Your task to perform on an android device: Empty the shopping cart on walmart. Add macbook pro 15 inch to the cart on walmart, then select checkout. Image 0: 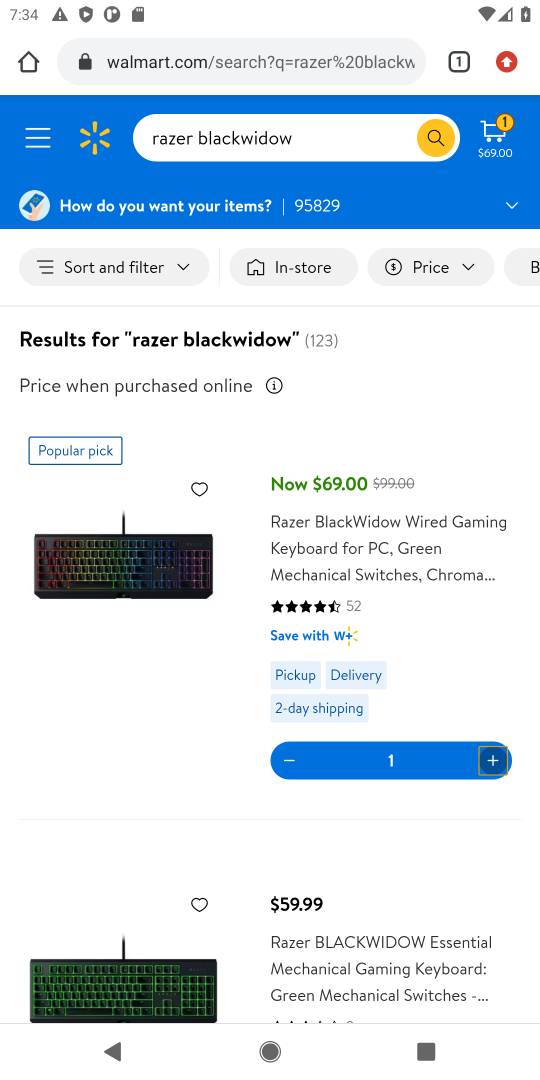
Step 0: press home button
Your task to perform on an android device: Empty the shopping cart on walmart. Add macbook pro 15 inch to the cart on walmart, then select checkout. Image 1: 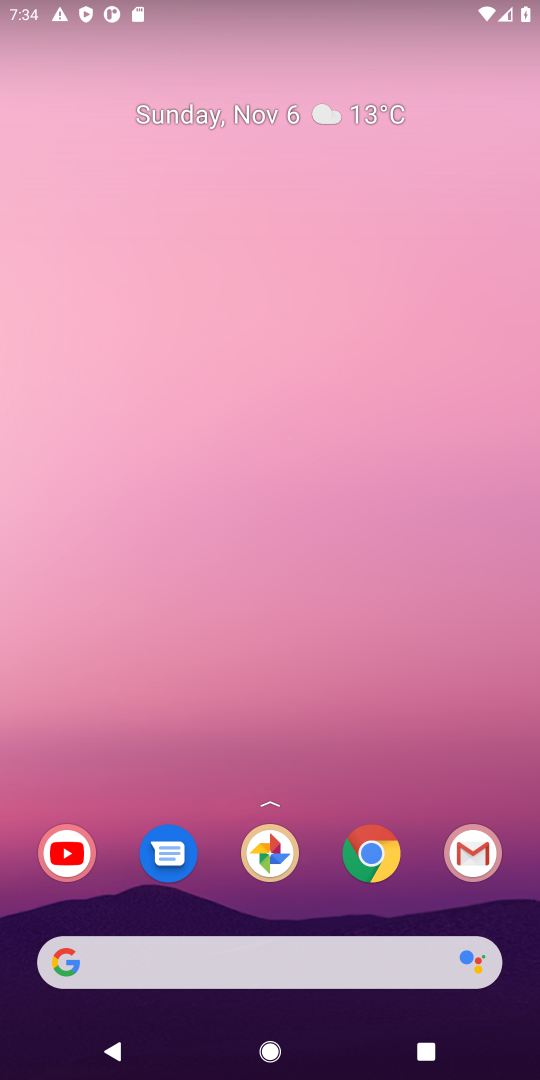
Step 1: click (370, 855)
Your task to perform on an android device: Empty the shopping cart on walmart. Add macbook pro 15 inch to the cart on walmart, then select checkout. Image 2: 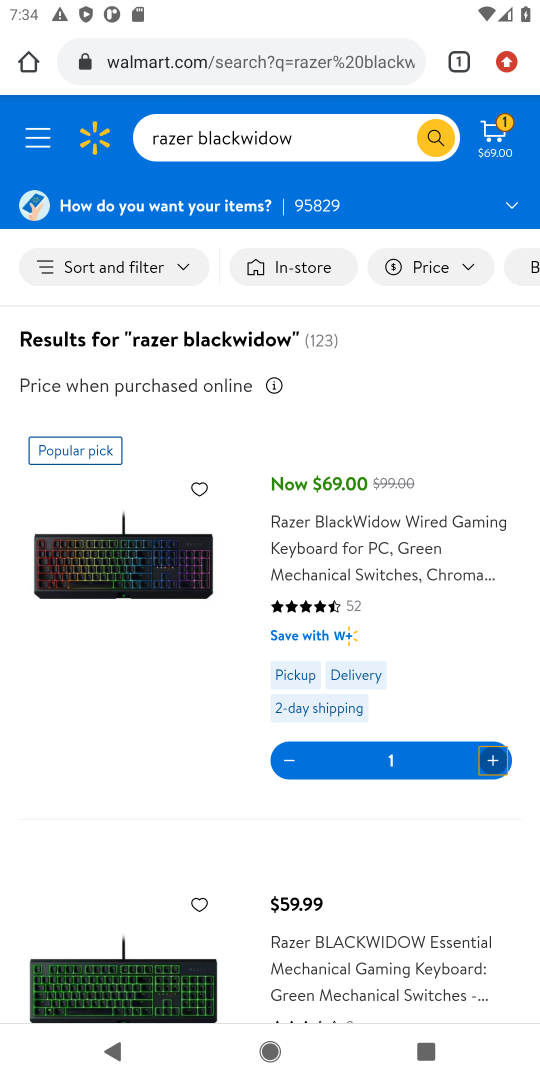
Step 2: click (274, 37)
Your task to perform on an android device: Empty the shopping cart on walmart. Add macbook pro 15 inch to the cart on walmart, then select checkout. Image 3: 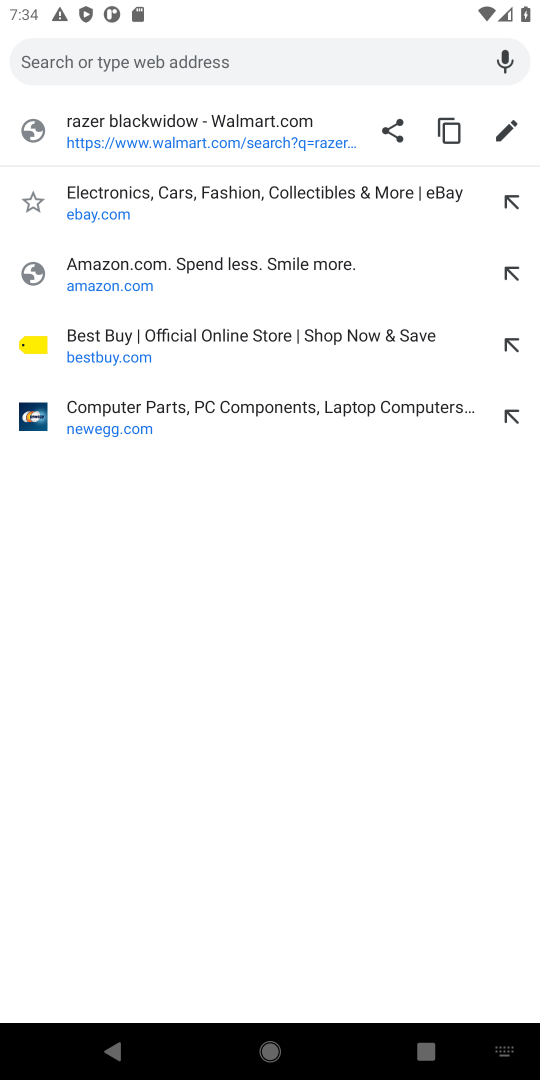
Step 3: type "walmart"
Your task to perform on an android device: Empty the shopping cart on walmart. Add macbook pro 15 inch to the cart on walmart, then select checkout. Image 4: 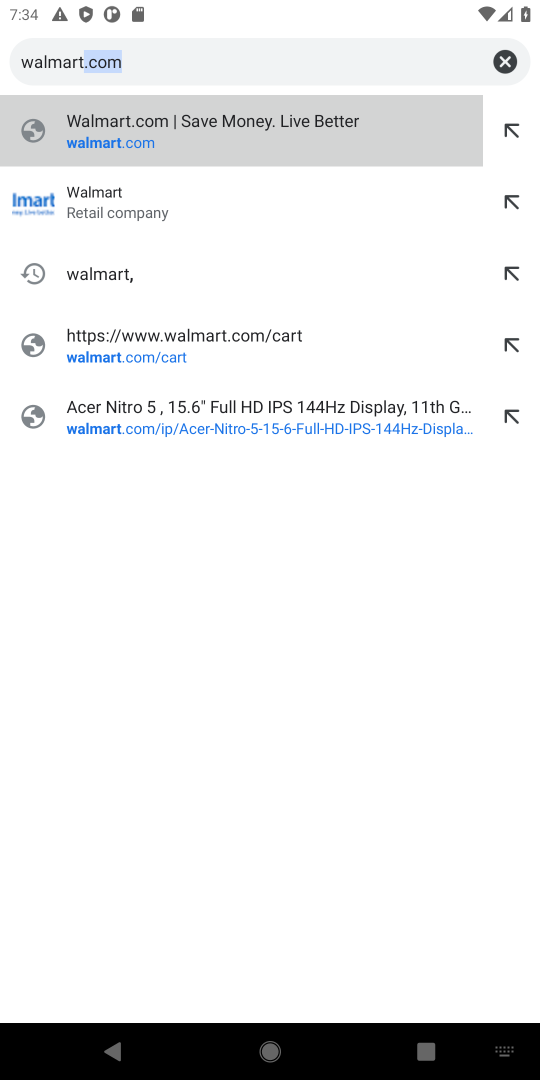
Step 4: click (84, 125)
Your task to perform on an android device: Empty the shopping cart on walmart. Add macbook pro 15 inch to the cart on walmart, then select checkout. Image 5: 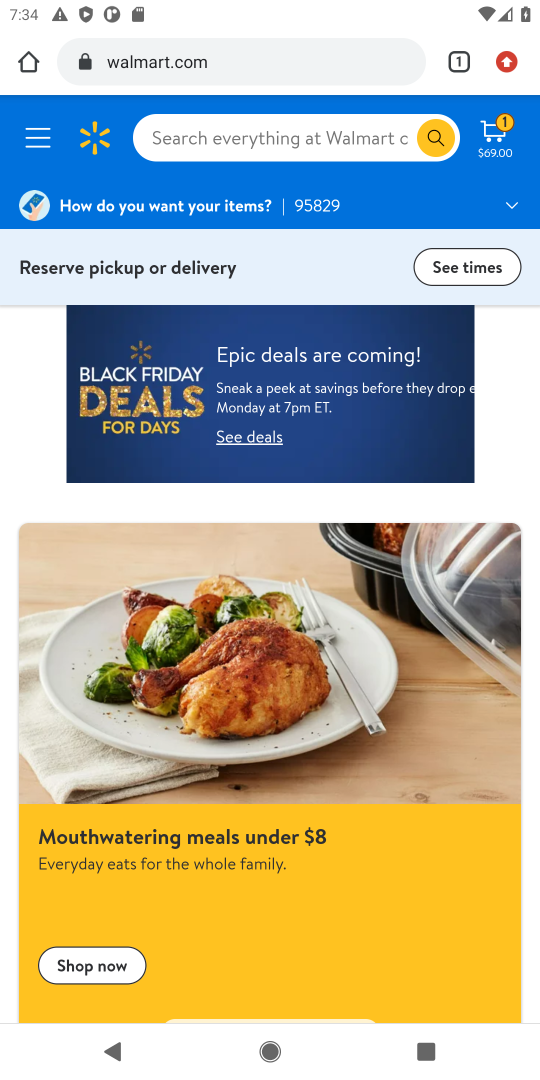
Step 5: click (258, 128)
Your task to perform on an android device: Empty the shopping cart on walmart. Add macbook pro 15 inch to the cart on walmart, then select checkout. Image 6: 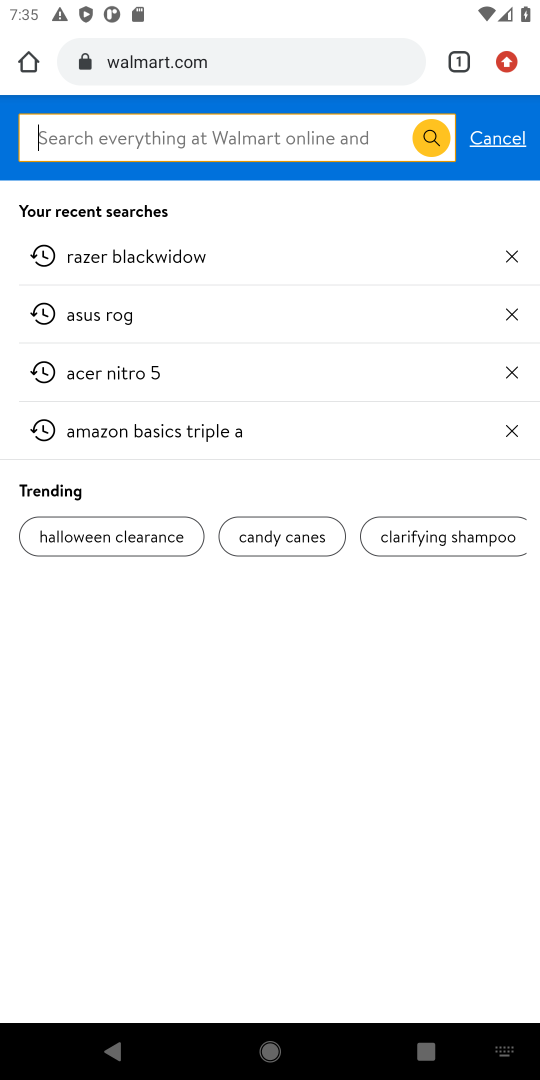
Step 6: click (484, 134)
Your task to perform on an android device: Empty the shopping cart on walmart. Add macbook pro 15 inch to the cart on walmart, then select checkout. Image 7: 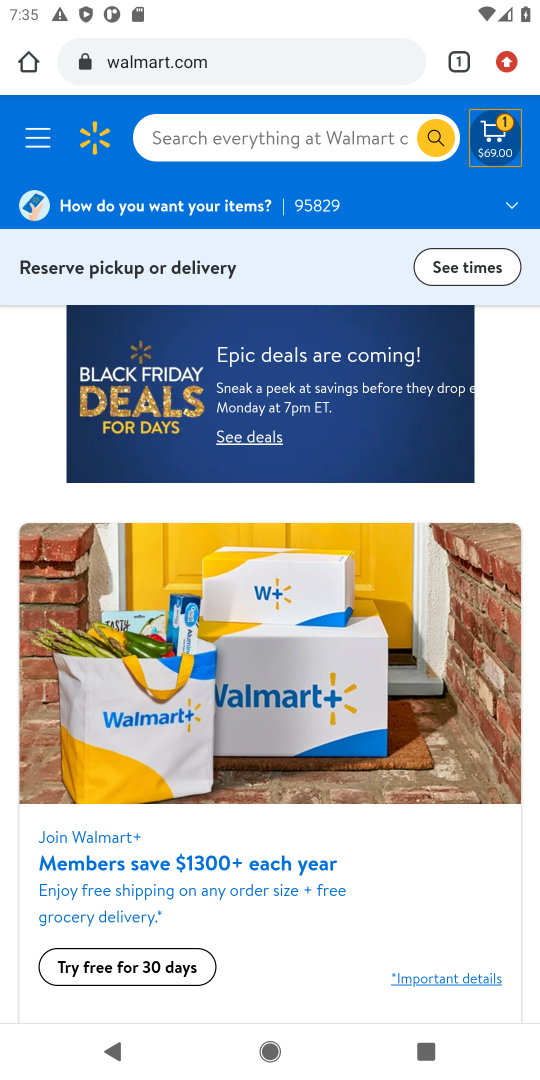
Step 7: click (489, 131)
Your task to perform on an android device: Empty the shopping cart on walmart. Add macbook pro 15 inch to the cart on walmart, then select checkout. Image 8: 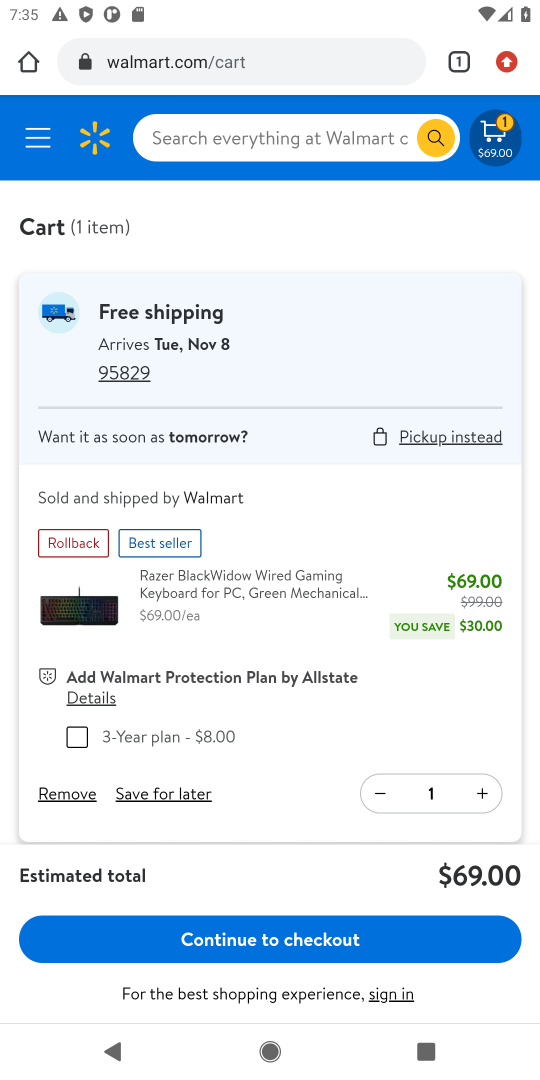
Step 8: click (52, 796)
Your task to perform on an android device: Empty the shopping cart on walmart. Add macbook pro 15 inch to the cart on walmart, then select checkout. Image 9: 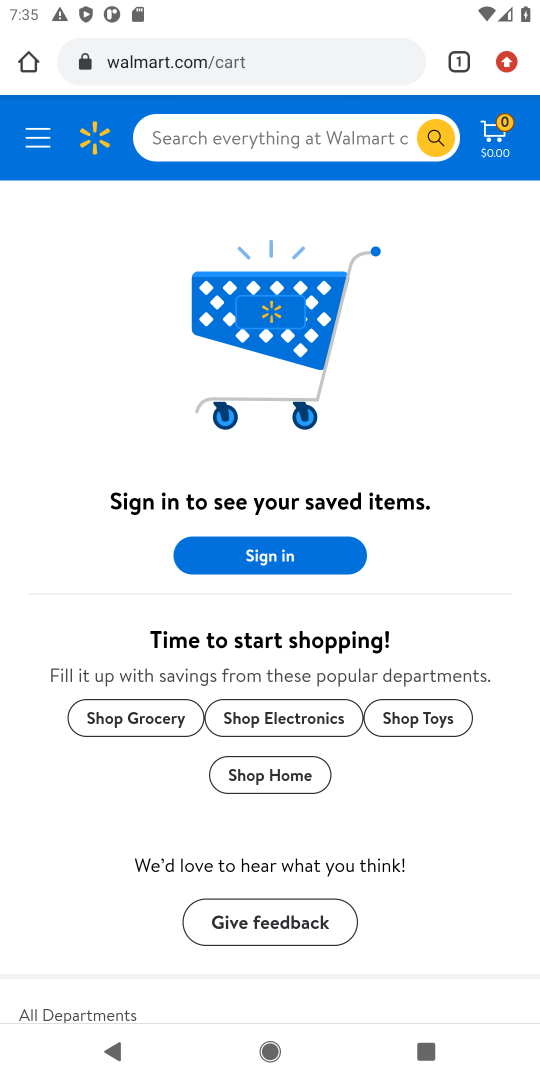
Step 9: click (210, 135)
Your task to perform on an android device: Empty the shopping cart on walmart. Add macbook pro 15 inch to the cart on walmart, then select checkout. Image 10: 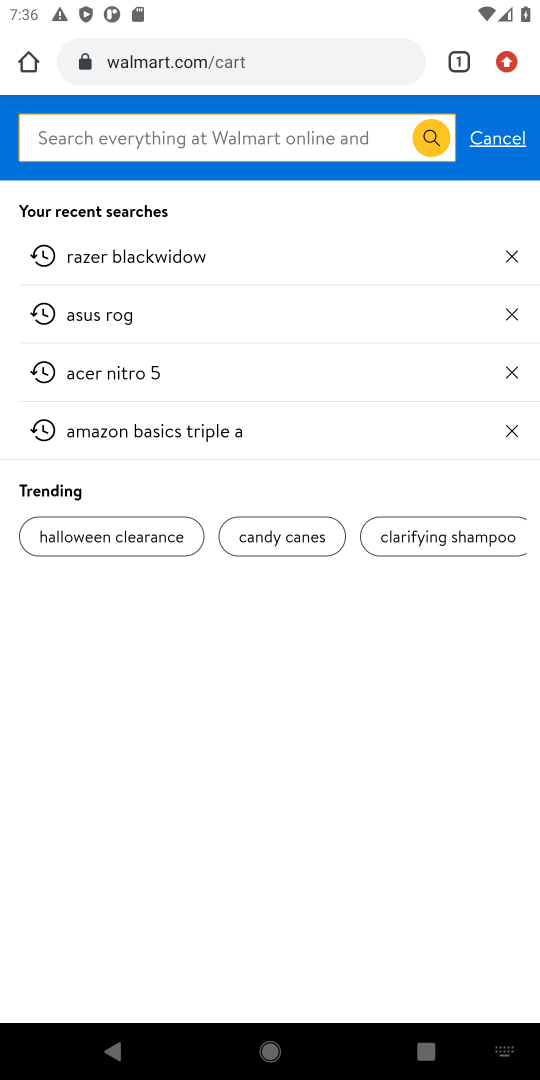
Step 10: type "macbook pro 15 inch"
Your task to perform on an android device: Empty the shopping cart on walmart. Add macbook pro 15 inch to the cart on walmart, then select checkout. Image 11: 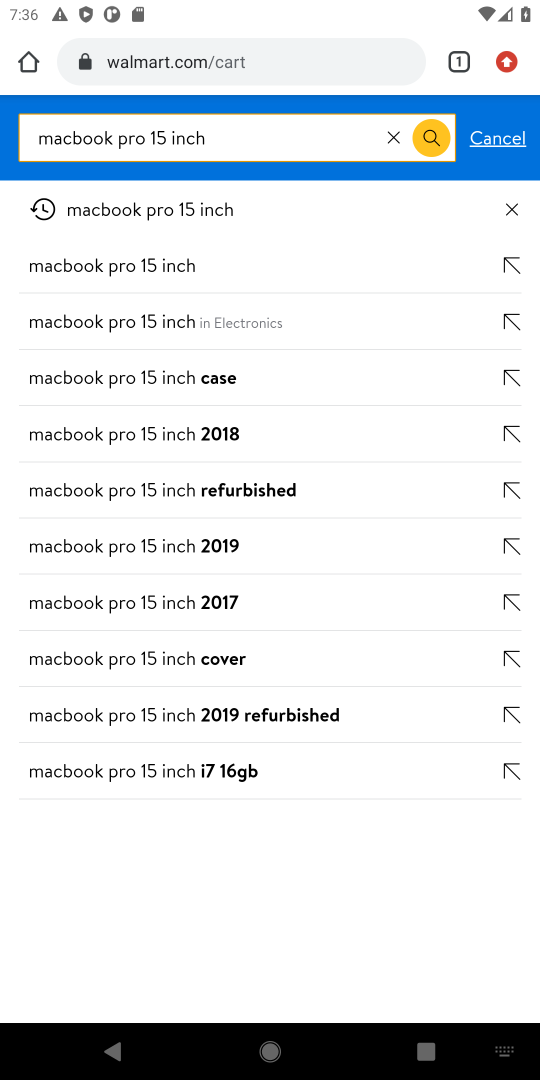
Step 11: click (119, 209)
Your task to perform on an android device: Empty the shopping cart on walmart. Add macbook pro 15 inch to the cart on walmart, then select checkout. Image 12: 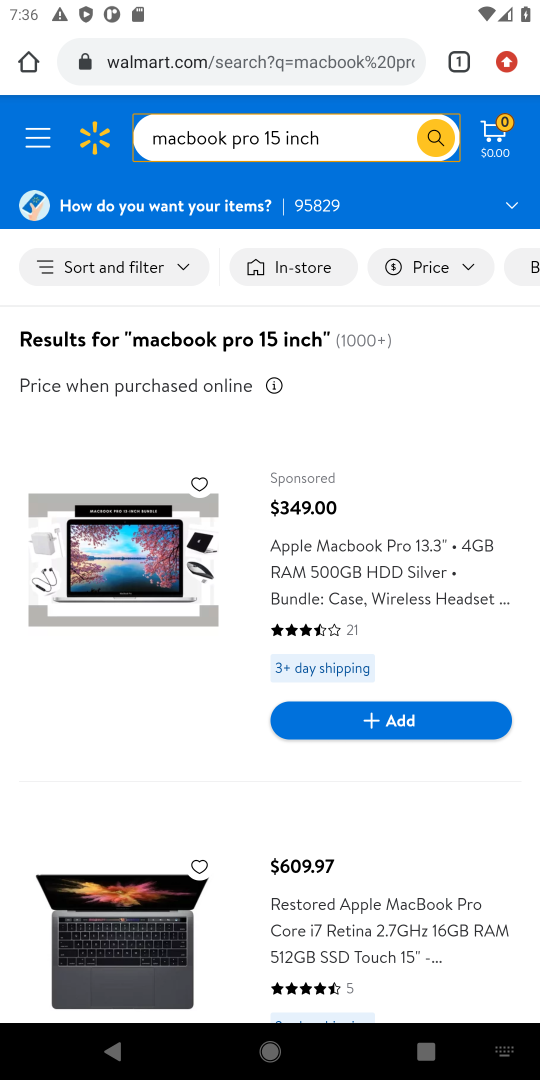
Step 12: drag from (293, 817) to (298, 280)
Your task to perform on an android device: Empty the shopping cart on walmart. Add macbook pro 15 inch to the cart on walmart, then select checkout. Image 13: 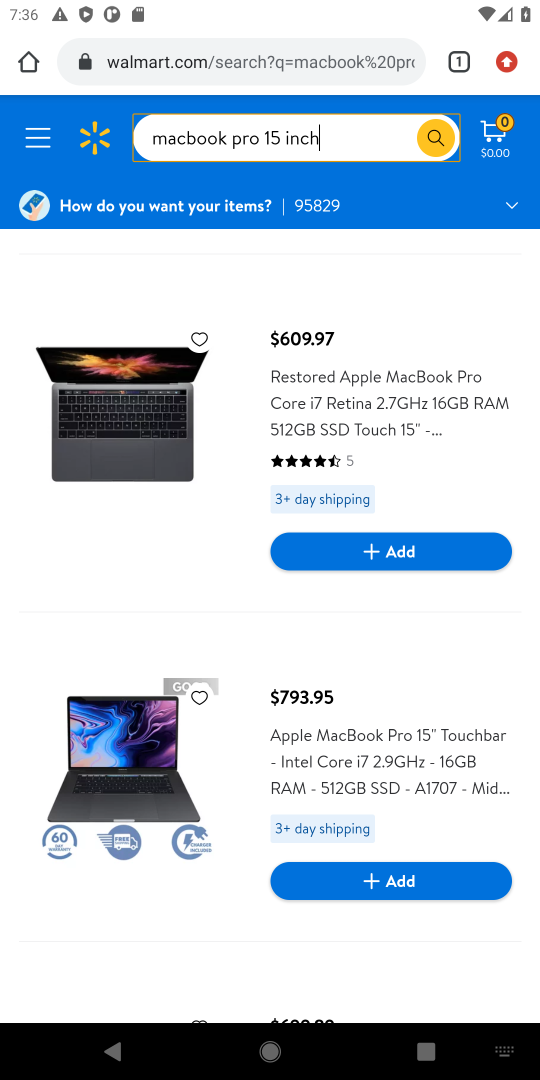
Step 13: drag from (255, 682) to (291, 302)
Your task to perform on an android device: Empty the shopping cart on walmart. Add macbook pro 15 inch to the cart on walmart, then select checkout. Image 14: 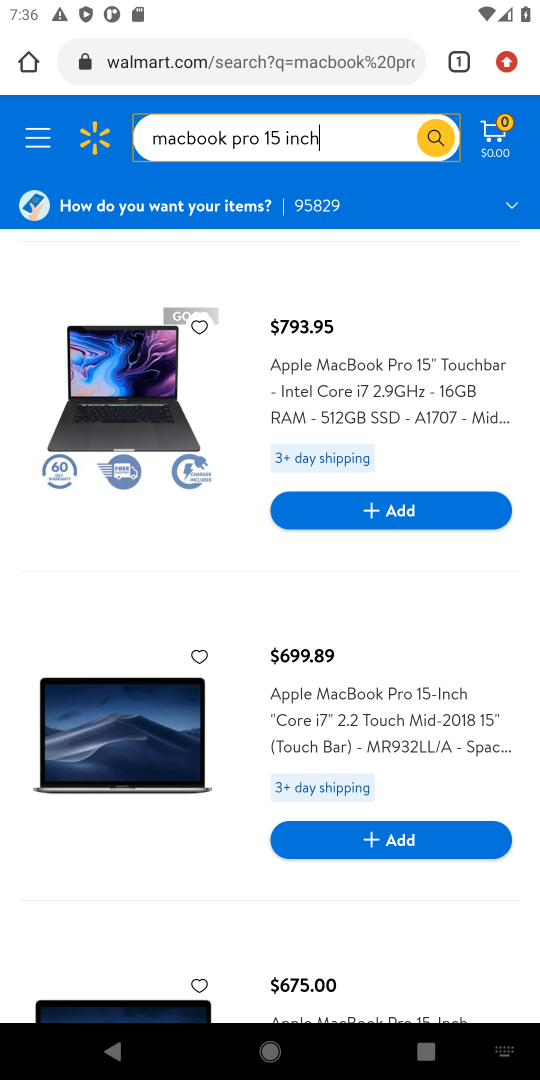
Step 14: drag from (319, 707) to (312, 637)
Your task to perform on an android device: Empty the shopping cart on walmart. Add macbook pro 15 inch to the cart on walmart, then select checkout. Image 15: 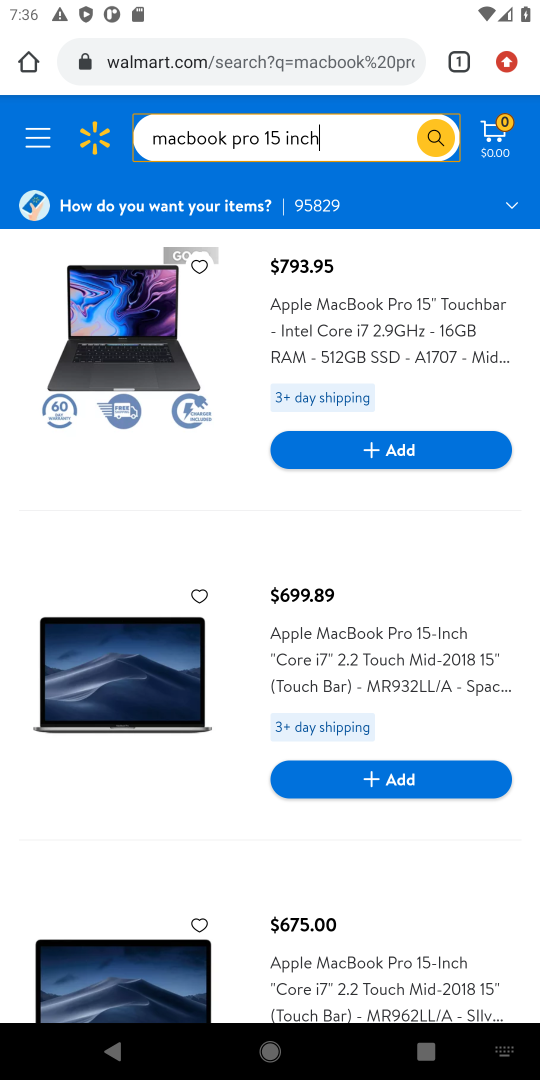
Step 15: click (374, 779)
Your task to perform on an android device: Empty the shopping cart on walmart. Add macbook pro 15 inch to the cart on walmart, then select checkout. Image 16: 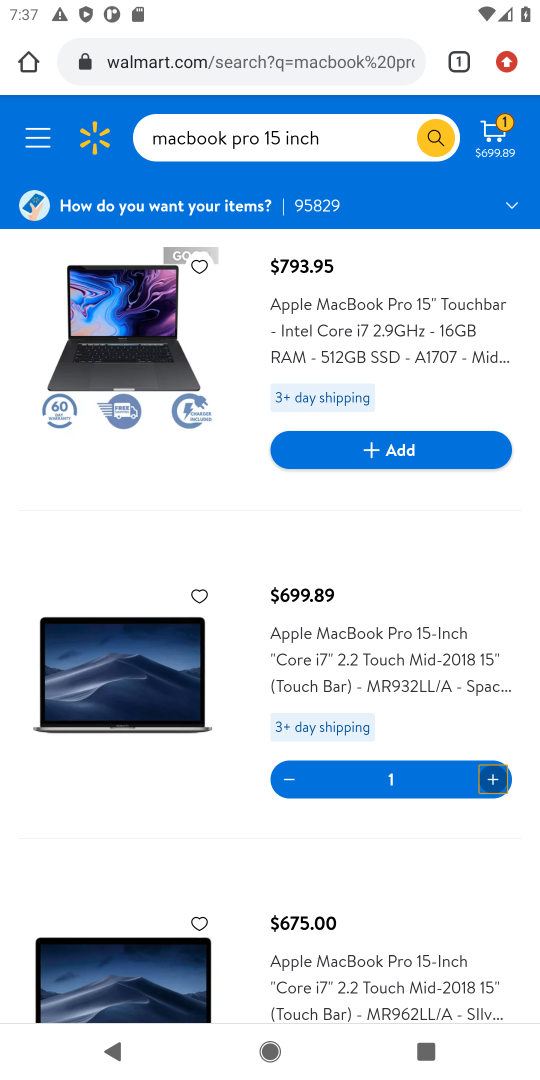
Step 16: click (502, 126)
Your task to perform on an android device: Empty the shopping cart on walmart. Add macbook pro 15 inch to the cart on walmart, then select checkout. Image 17: 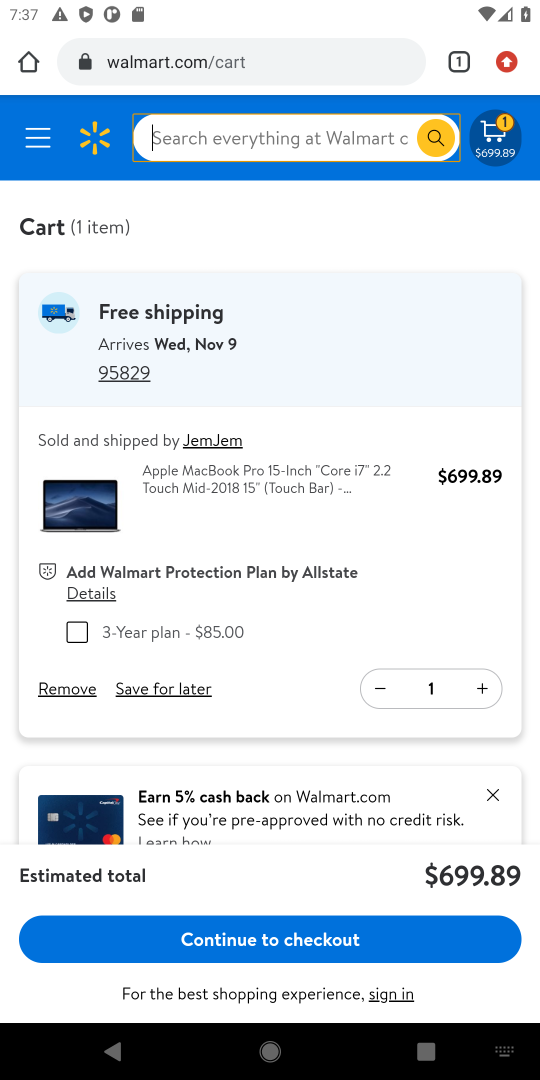
Step 17: click (274, 935)
Your task to perform on an android device: Empty the shopping cart on walmart. Add macbook pro 15 inch to the cart on walmart, then select checkout. Image 18: 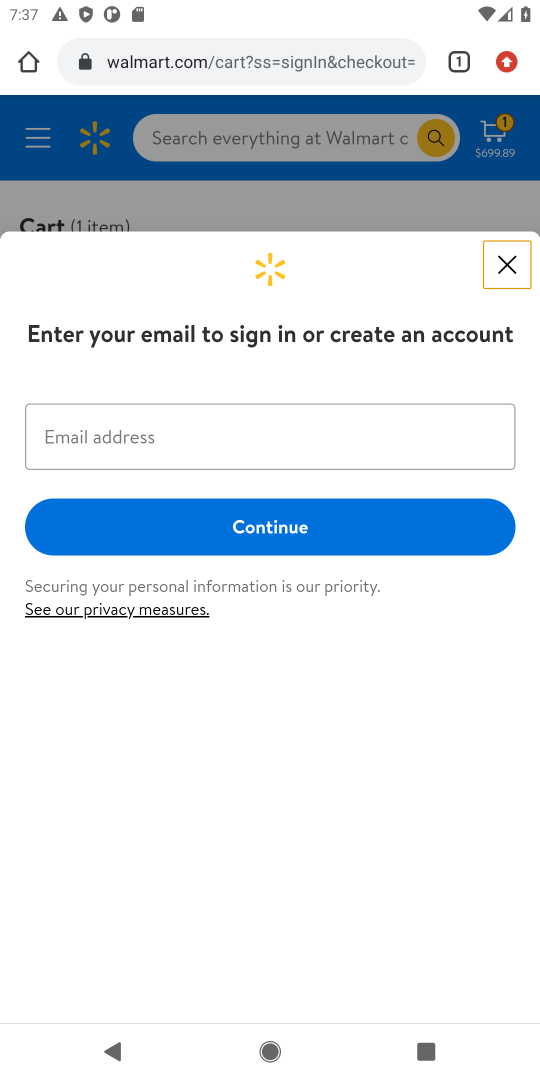
Step 18: task complete